Your task to perform on an android device: turn on improve location accuracy Image 0: 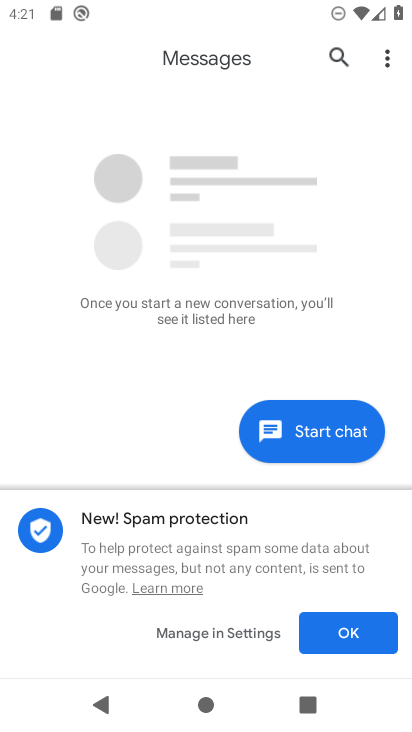
Step 0: press home button
Your task to perform on an android device: turn on improve location accuracy Image 1: 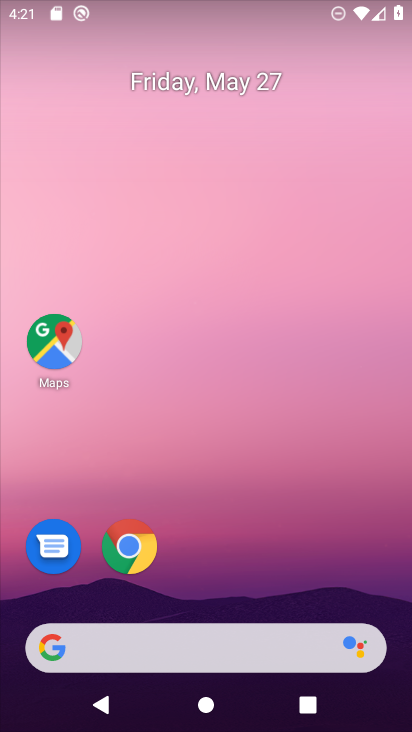
Step 1: drag from (292, 579) to (292, 9)
Your task to perform on an android device: turn on improve location accuracy Image 2: 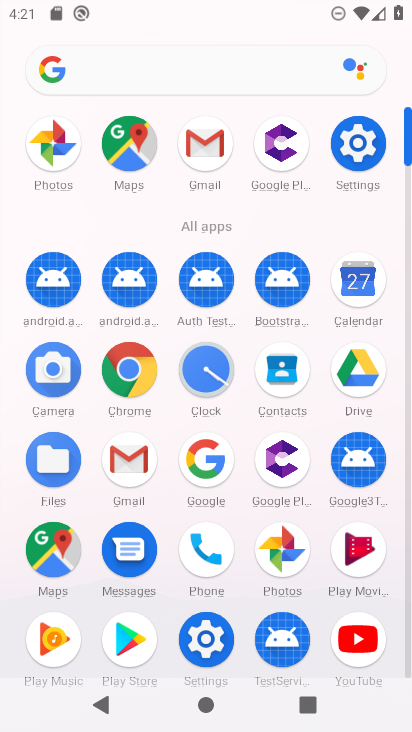
Step 2: click (359, 191)
Your task to perform on an android device: turn on improve location accuracy Image 3: 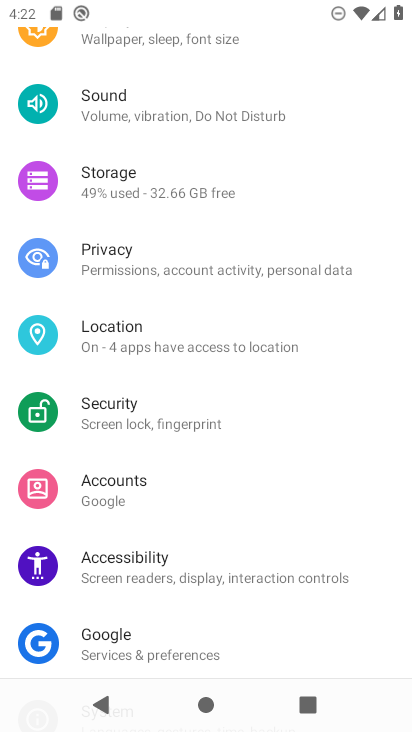
Step 3: click (236, 350)
Your task to perform on an android device: turn on improve location accuracy Image 4: 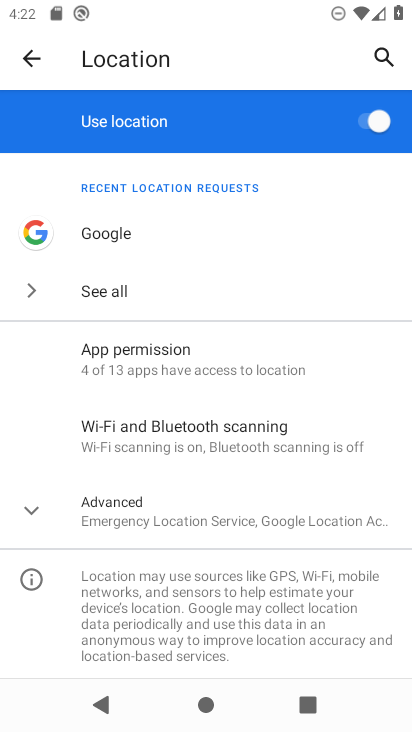
Step 4: click (192, 505)
Your task to perform on an android device: turn on improve location accuracy Image 5: 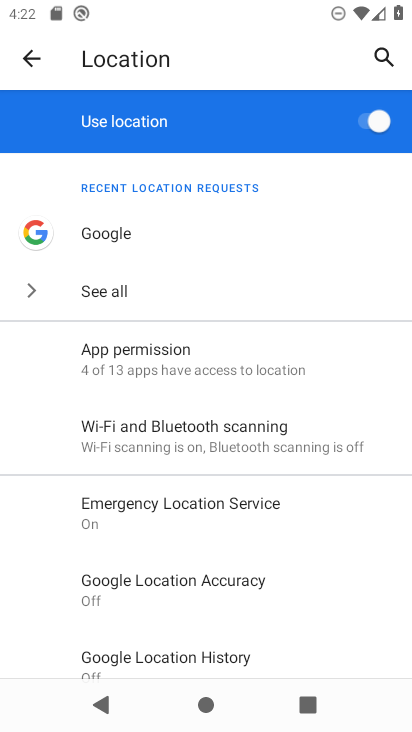
Step 5: click (280, 572)
Your task to perform on an android device: turn on improve location accuracy Image 6: 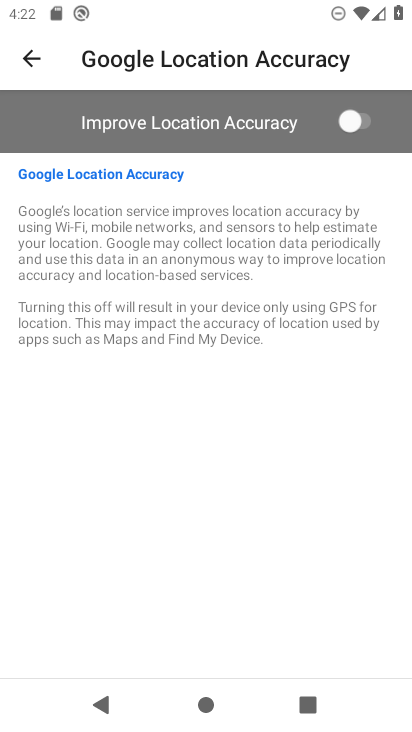
Step 6: click (353, 106)
Your task to perform on an android device: turn on improve location accuracy Image 7: 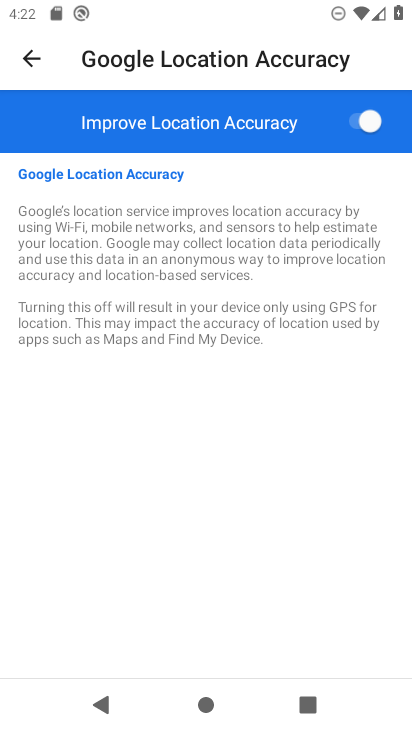
Step 7: task complete